Your task to perform on an android device: toggle notification dots Image 0: 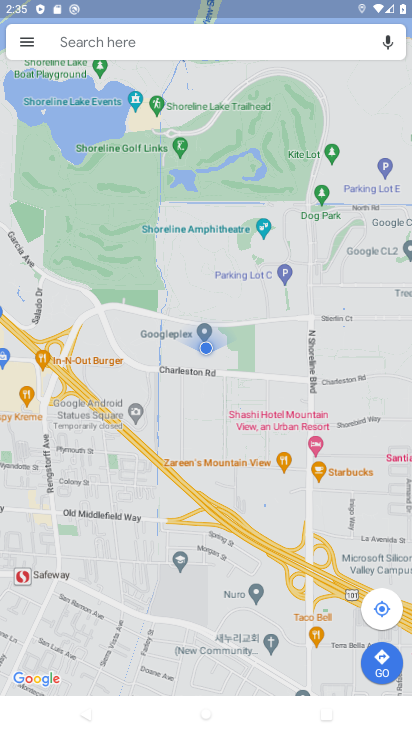
Step 0: press home button
Your task to perform on an android device: toggle notification dots Image 1: 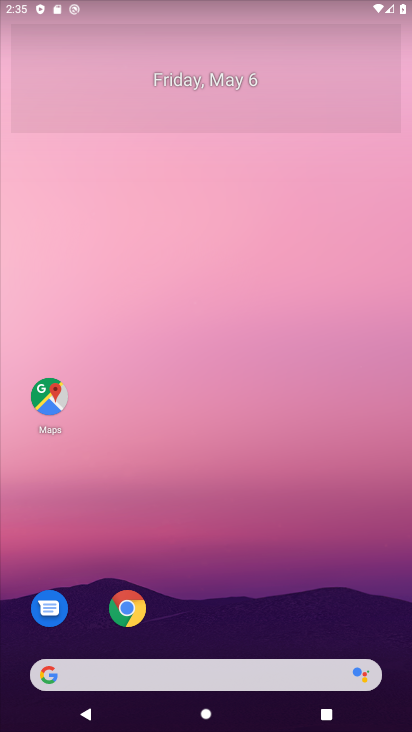
Step 1: drag from (265, 577) to (274, 164)
Your task to perform on an android device: toggle notification dots Image 2: 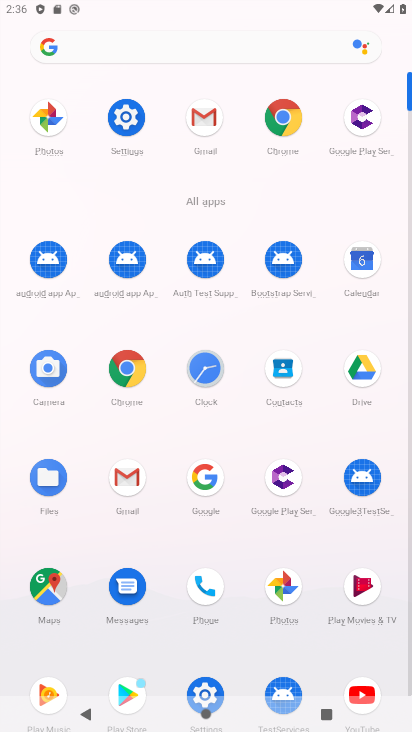
Step 2: click (118, 127)
Your task to perform on an android device: toggle notification dots Image 3: 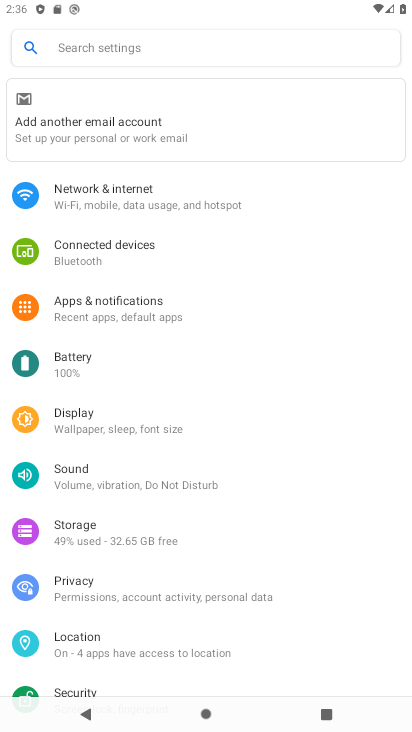
Step 3: click (141, 314)
Your task to perform on an android device: toggle notification dots Image 4: 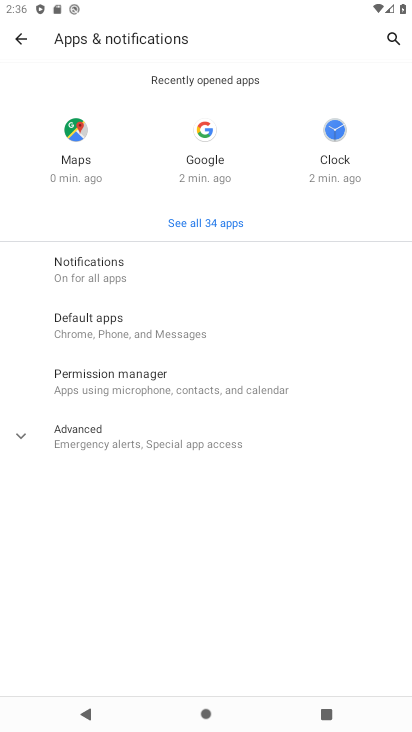
Step 4: click (139, 279)
Your task to perform on an android device: toggle notification dots Image 5: 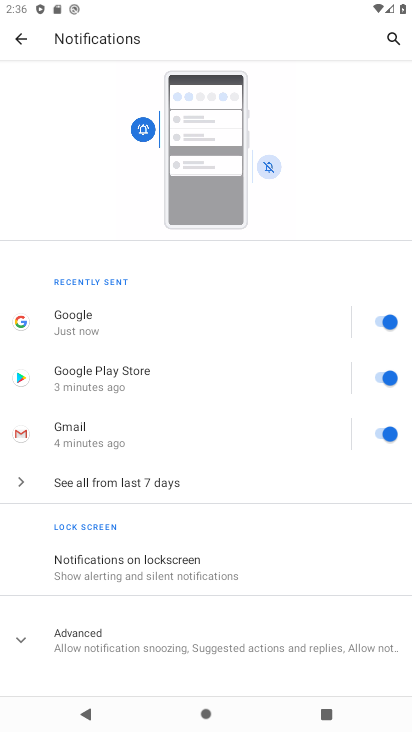
Step 5: click (189, 624)
Your task to perform on an android device: toggle notification dots Image 6: 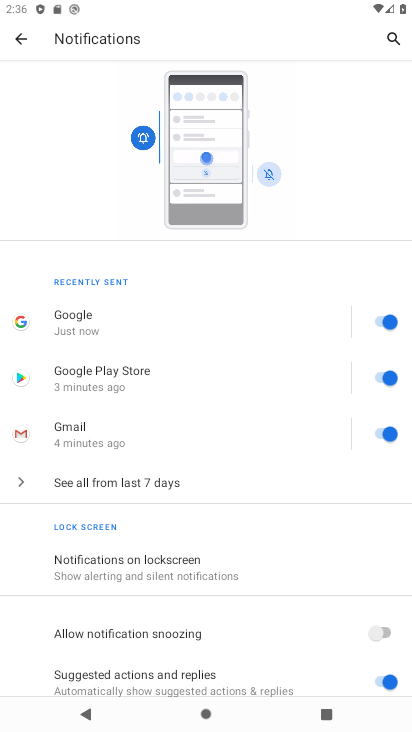
Step 6: drag from (203, 607) to (243, 330)
Your task to perform on an android device: toggle notification dots Image 7: 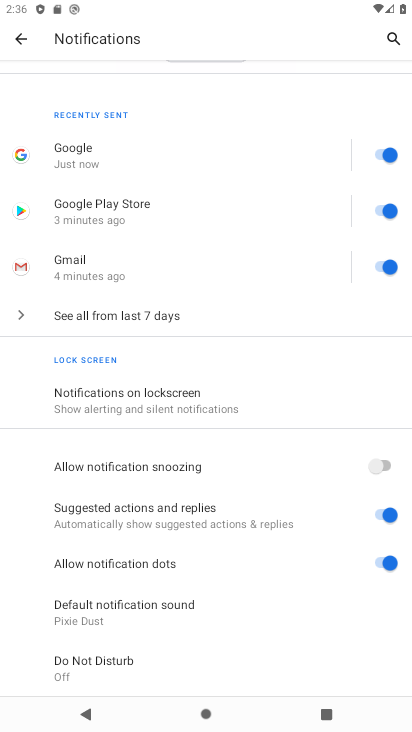
Step 7: click (385, 564)
Your task to perform on an android device: toggle notification dots Image 8: 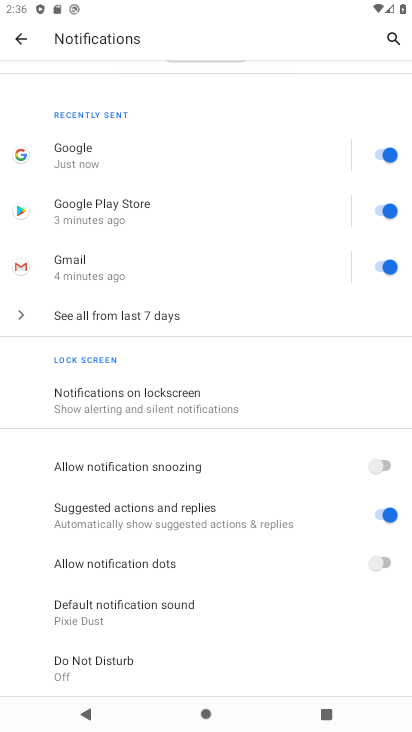
Step 8: task complete